Your task to perform on an android device: Go to notification settings Image 0: 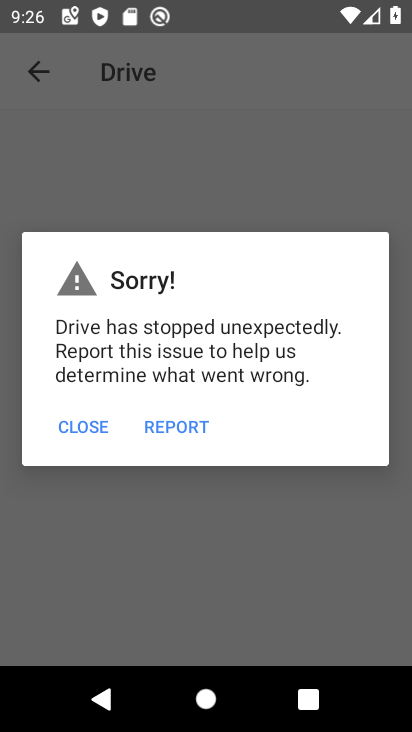
Step 0: press home button
Your task to perform on an android device: Go to notification settings Image 1: 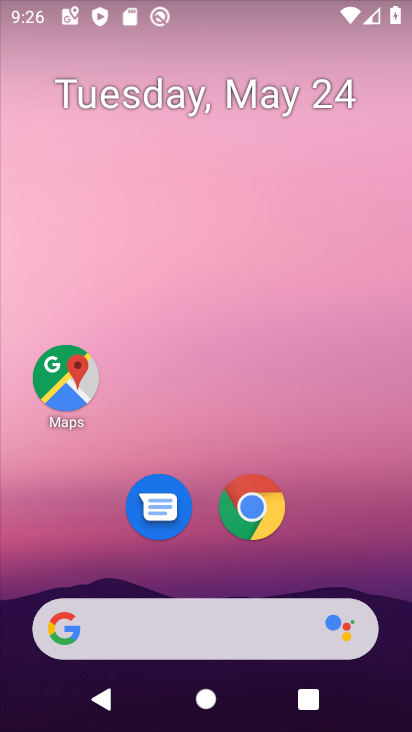
Step 1: drag from (62, 543) to (160, 87)
Your task to perform on an android device: Go to notification settings Image 2: 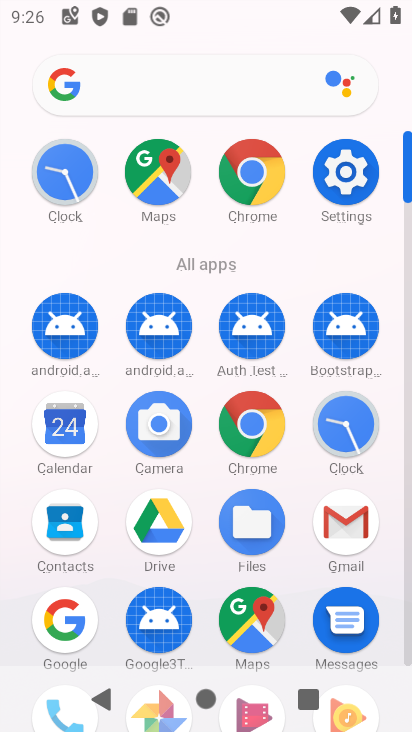
Step 2: drag from (175, 555) to (269, 246)
Your task to perform on an android device: Go to notification settings Image 3: 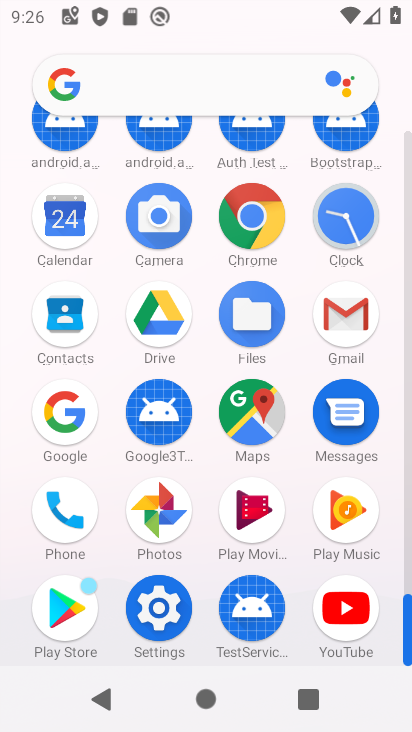
Step 3: click (172, 615)
Your task to perform on an android device: Go to notification settings Image 4: 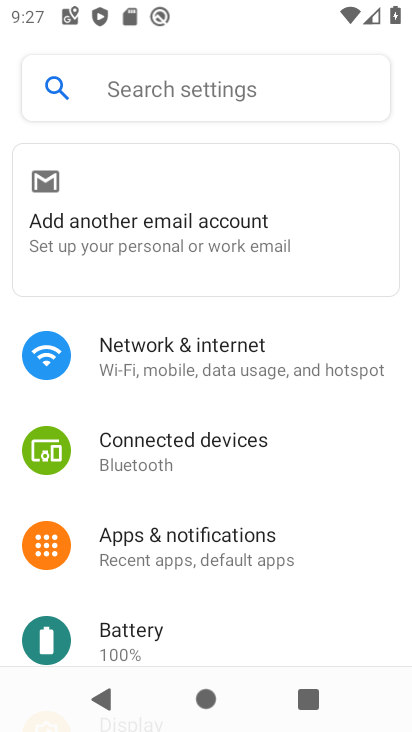
Step 4: click (181, 549)
Your task to perform on an android device: Go to notification settings Image 5: 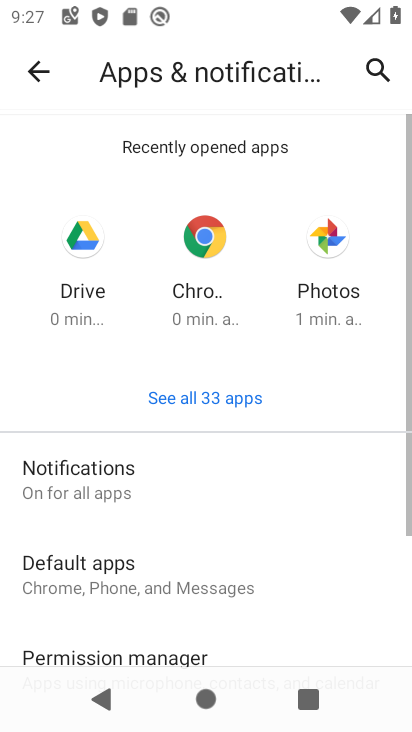
Step 5: click (174, 498)
Your task to perform on an android device: Go to notification settings Image 6: 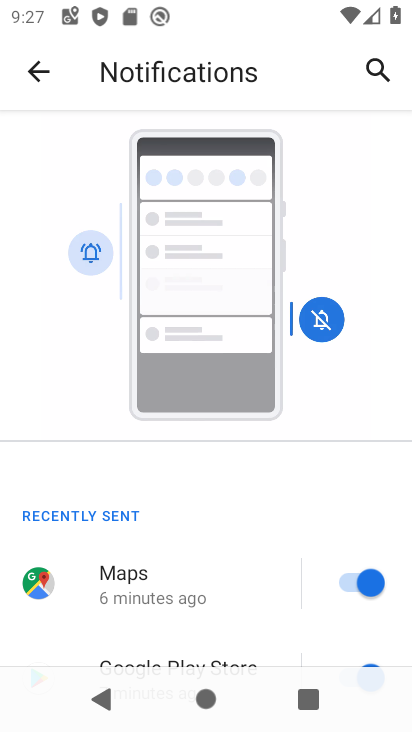
Step 6: task complete